Your task to perform on an android device: toggle notification dots Image 0: 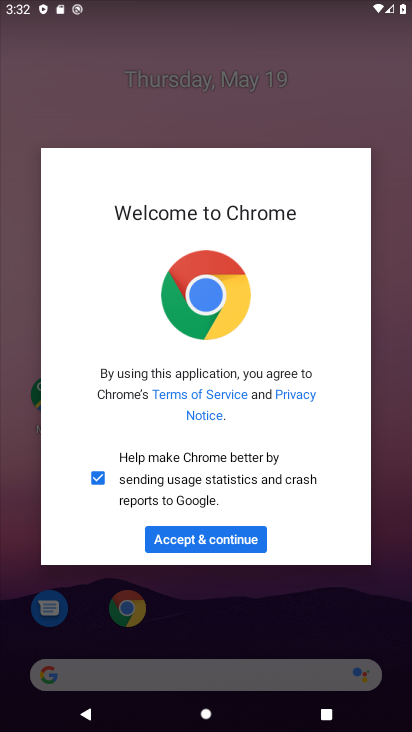
Step 0: press home button
Your task to perform on an android device: toggle notification dots Image 1: 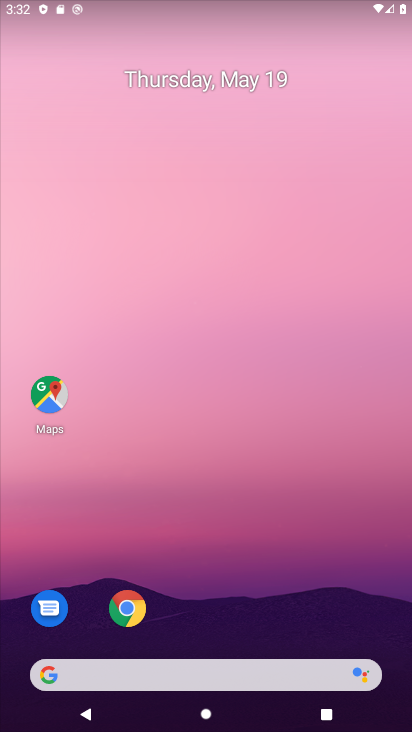
Step 1: drag from (223, 668) to (217, 177)
Your task to perform on an android device: toggle notification dots Image 2: 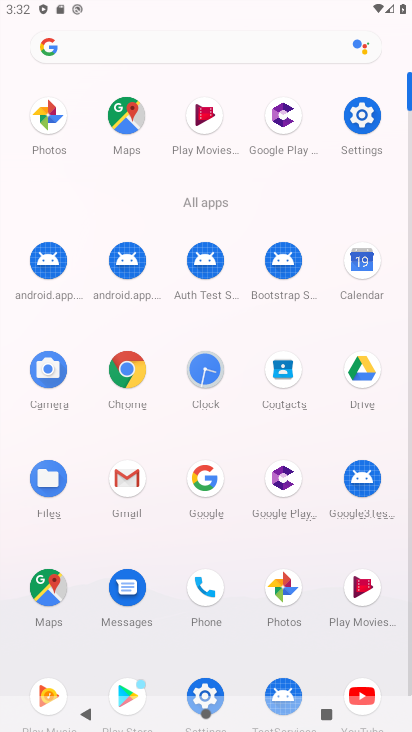
Step 2: click (364, 122)
Your task to perform on an android device: toggle notification dots Image 3: 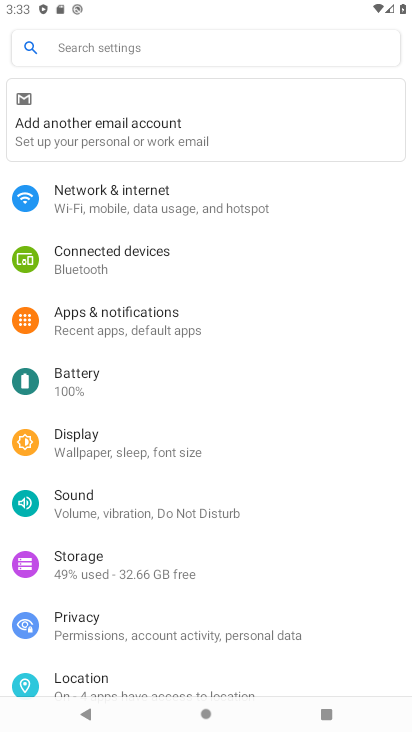
Step 3: click (88, 325)
Your task to perform on an android device: toggle notification dots Image 4: 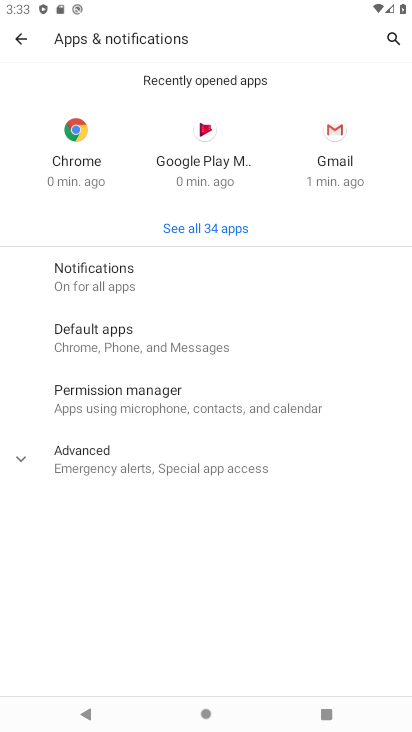
Step 4: click (80, 276)
Your task to perform on an android device: toggle notification dots Image 5: 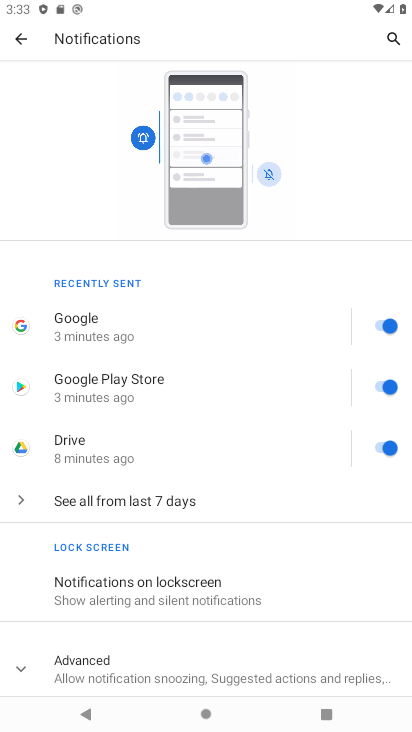
Step 5: click (96, 661)
Your task to perform on an android device: toggle notification dots Image 6: 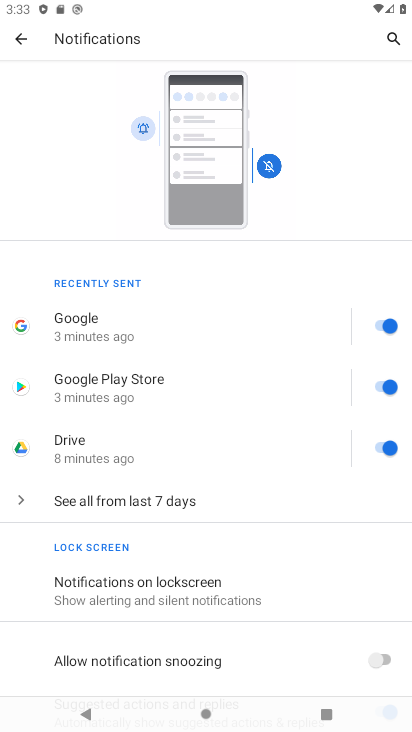
Step 6: drag from (149, 634) to (152, 370)
Your task to perform on an android device: toggle notification dots Image 7: 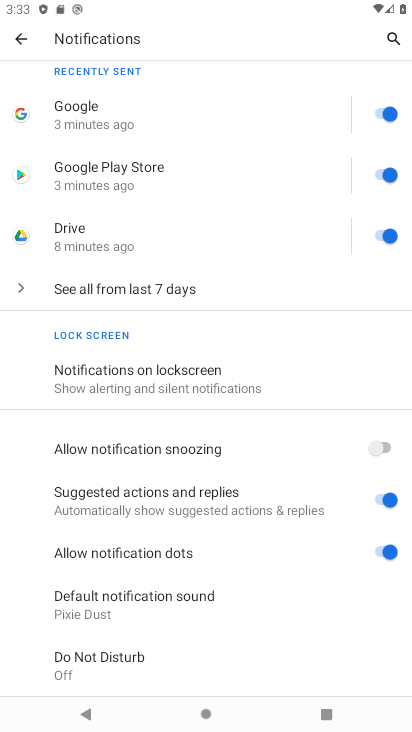
Step 7: click (382, 548)
Your task to perform on an android device: toggle notification dots Image 8: 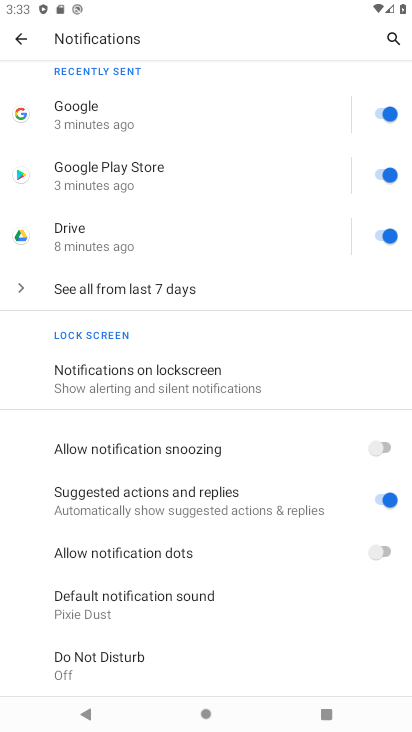
Step 8: task complete